Your task to perform on an android device: Open wifi settings Image 0: 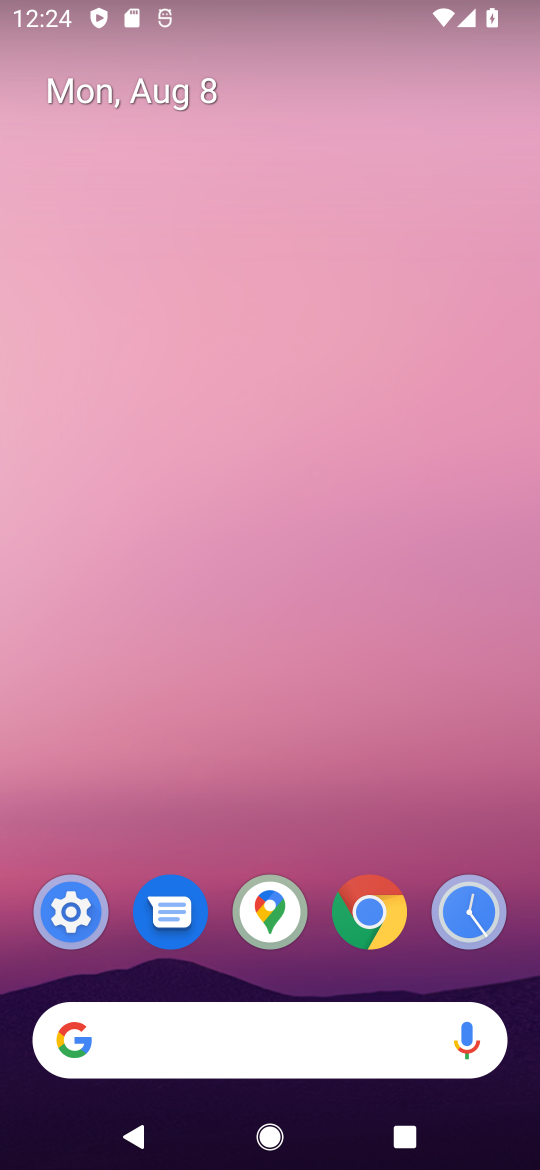
Step 0: drag from (137, 6) to (249, 791)
Your task to perform on an android device: Open wifi settings Image 1: 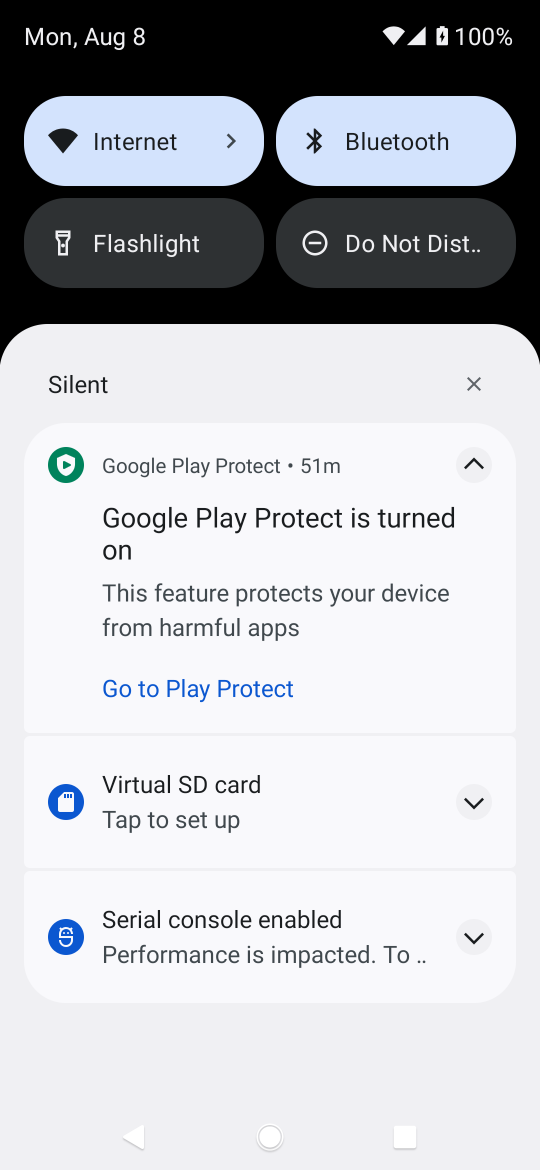
Step 1: click (94, 148)
Your task to perform on an android device: Open wifi settings Image 2: 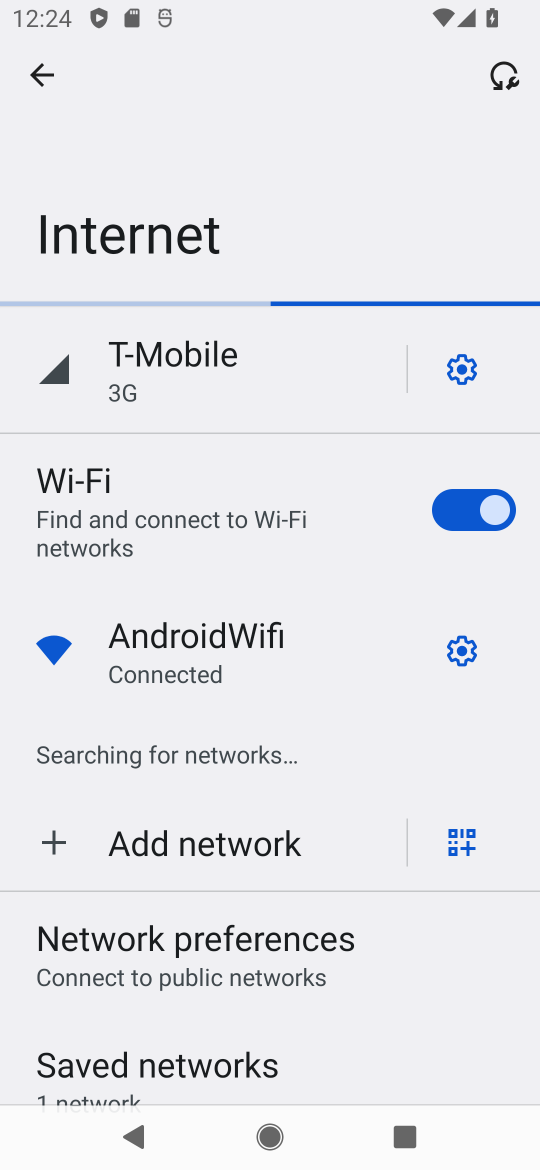
Step 2: task complete